Your task to perform on an android device: change the upload size in google photos Image 0: 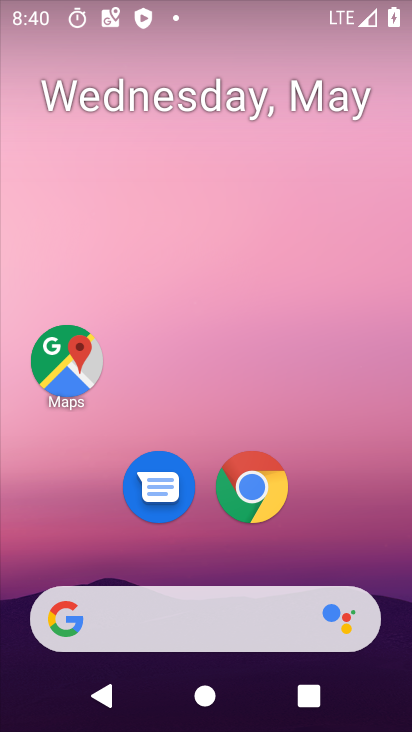
Step 0: drag from (217, 569) to (263, 162)
Your task to perform on an android device: change the upload size in google photos Image 1: 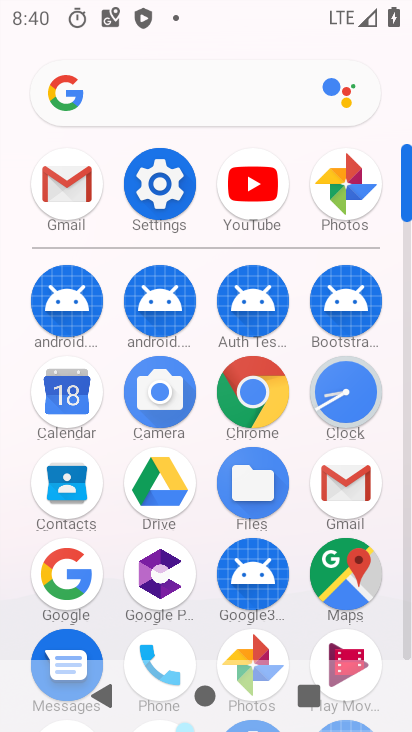
Step 1: drag from (199, 613) to (258, 326)
Your task to perform on an android device: change the upload size in google photos Image 2: 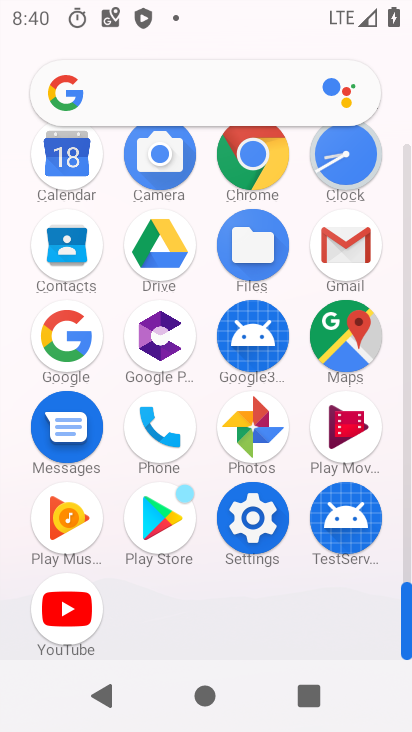
Step 2: click (245, 423)
Your task to perform on an android device: change the upload size in google photos Image 3: 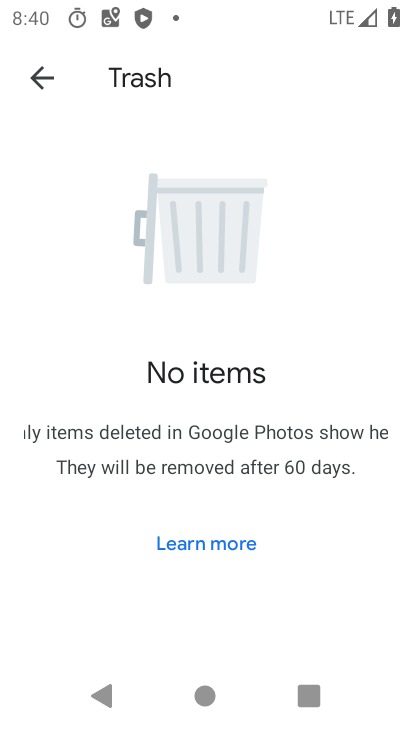
Step 3: click (46, 73)
Your task to perform on an android device: change the upload size in google photos Image 4: 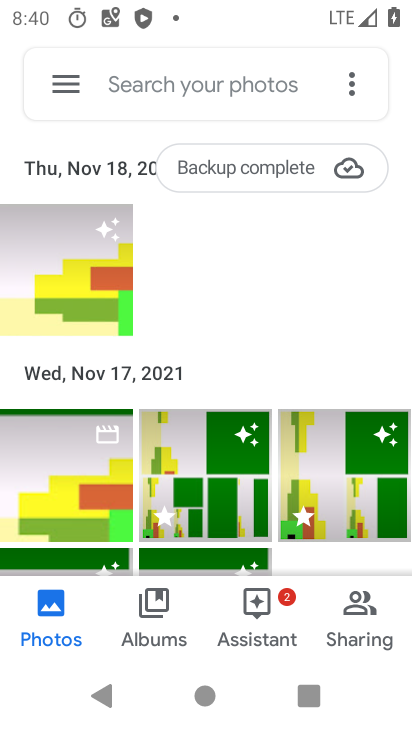
Step 4: click (46, 73)
Your task to perform on an android device: change the upload size in google photos Image 5: 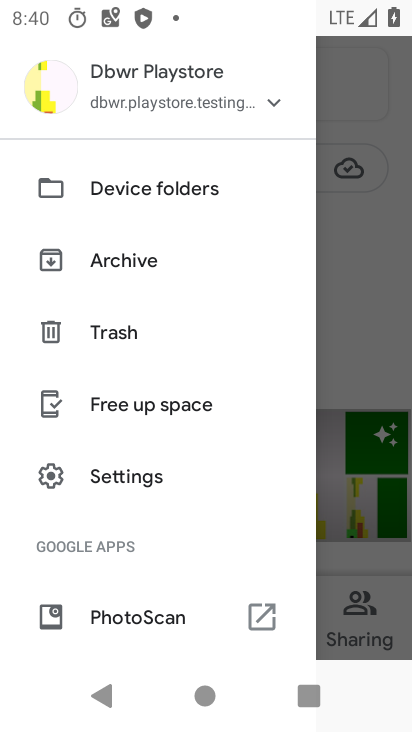
Step 5: click (132, 472)
Your task to perform on an android device: change the upload size in google photos Image 6: 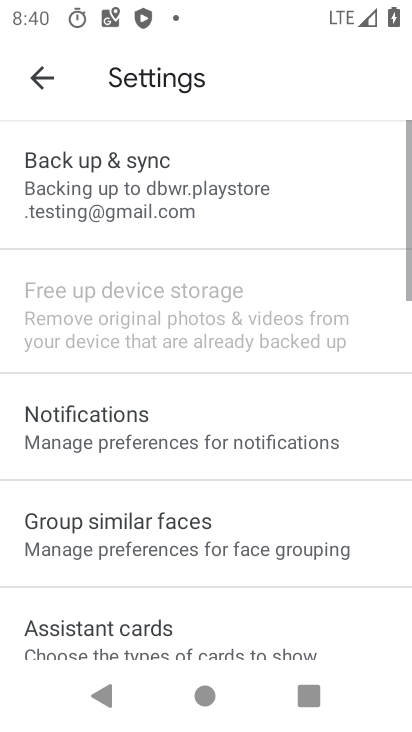
Step 6: click (159, 140)
Your task to perform on an android device: change the upload size in google photos Image 7: 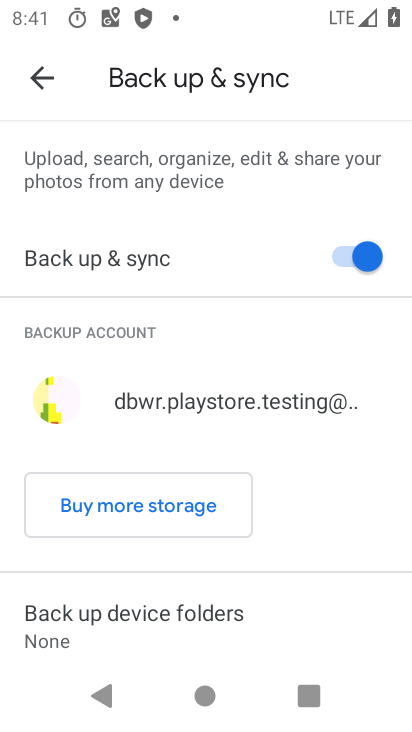
Step 7: drag from (190, 623) to (245, 359)
Your task to perform on an android device: change the upload size in google photos Image 8: 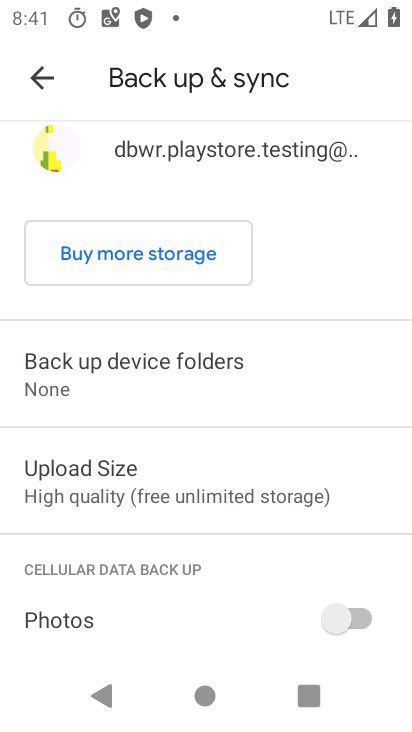
Step 8: click (158, 476)
Your task to perform on an android device: change the upload size in google photos Image 9: 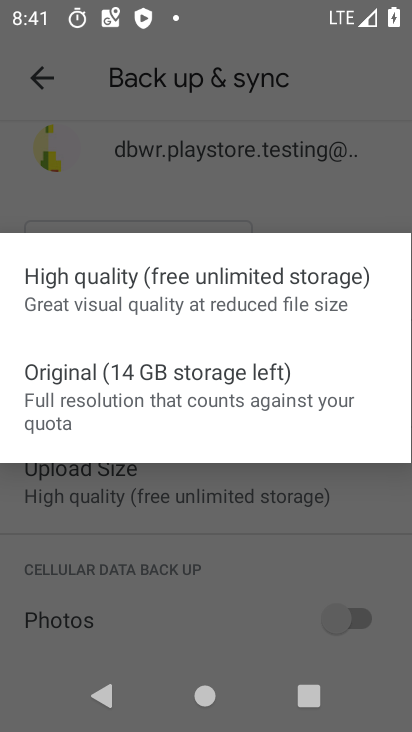
Step 9: click (123, 407)
Your task to perform on an android device: change the upload size in google photos Image 10: 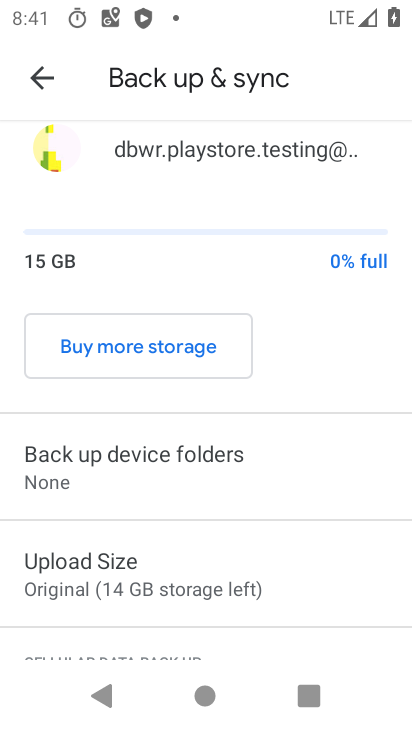
Step 10: task complete